Your task to perform on an android device: turn off location history Image 0: 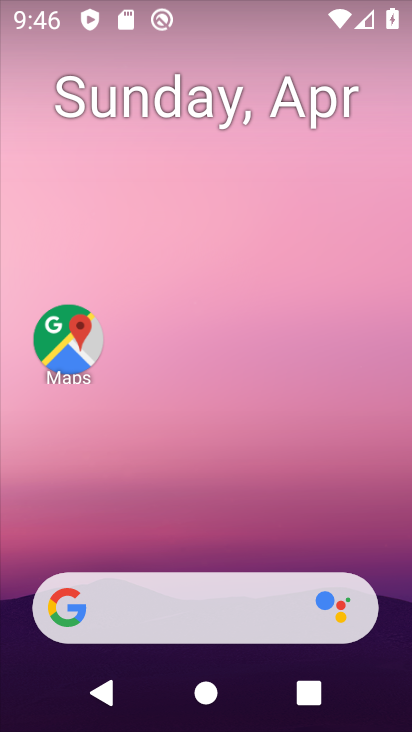
Step 0: drag from (221, 726) to (222, 213)
Your task to perform on an android device: turn off location history Image 1: 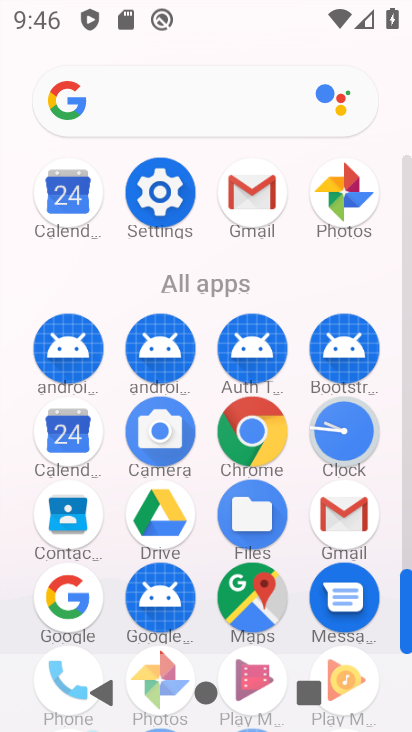
Step 1: click (148, 190)
Your task to perform on an android device: turn off location history Image 2: 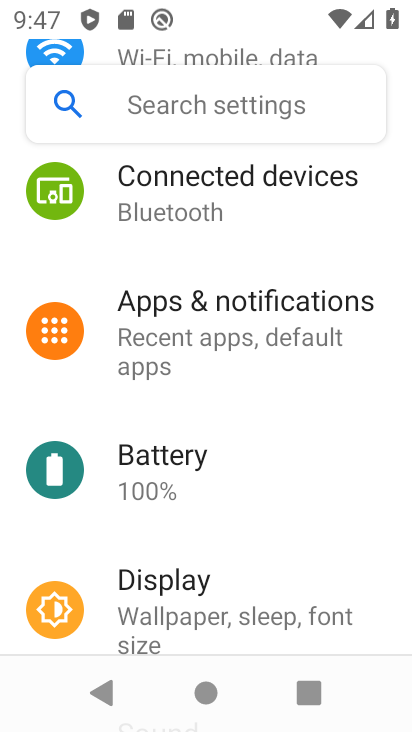
Step 2: drag from (258, 628) to (277, 214)
Your task to perform on an android device: turn off location history Image 3: 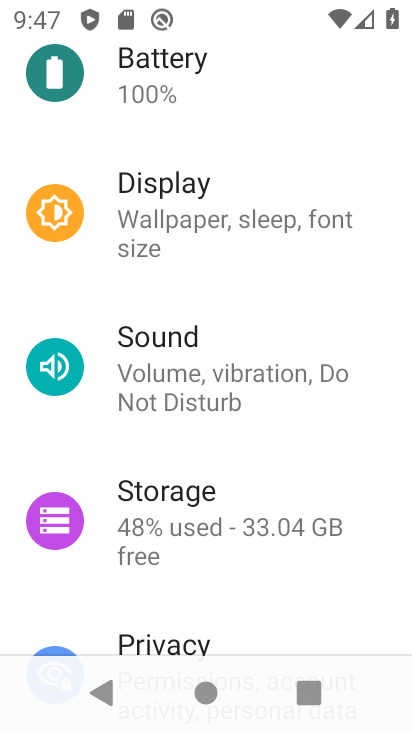
Step 3: drag from (236, 619) to (239, 205)
Your task to perform on an android device: turn off location history Image 4: 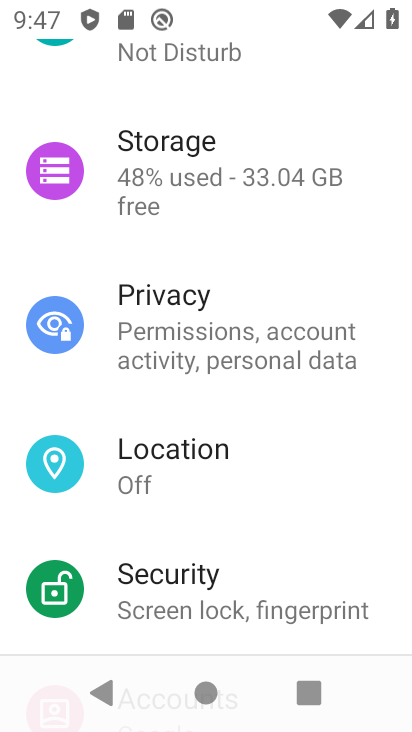
Step 4: click (158, 459)
Your task to perform on an android device: turn off location history Image 5: 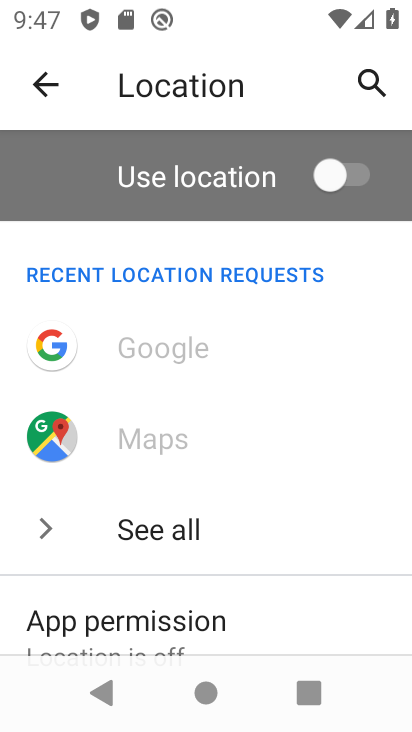
Step 5: drag from (263, 625) to (275, 292)
Your task to perform on an android device: turn off location history Image 6: 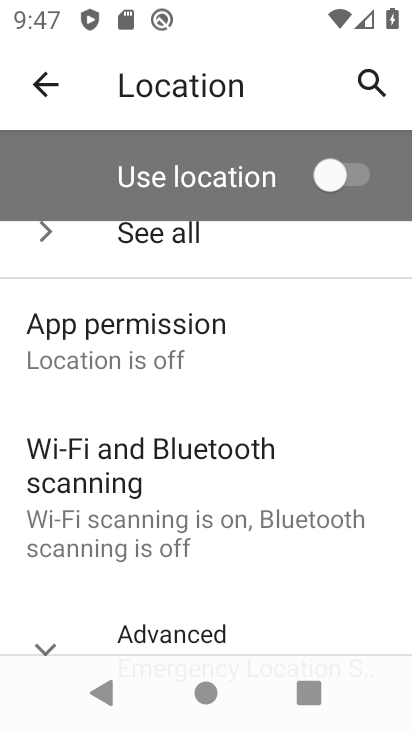
Step 6: drag from (265, 620) to (279, 305)
Your task to perform on an android device: turn off location history Image 7: 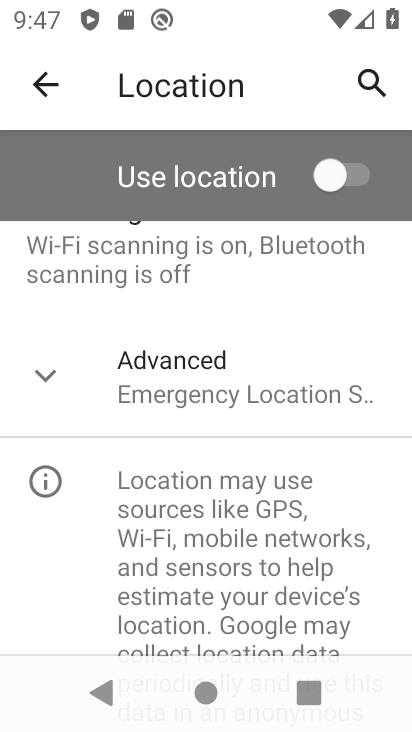
Step 7: click (152, 388)
Your task to perform on an android device: turn off location history Image 8: 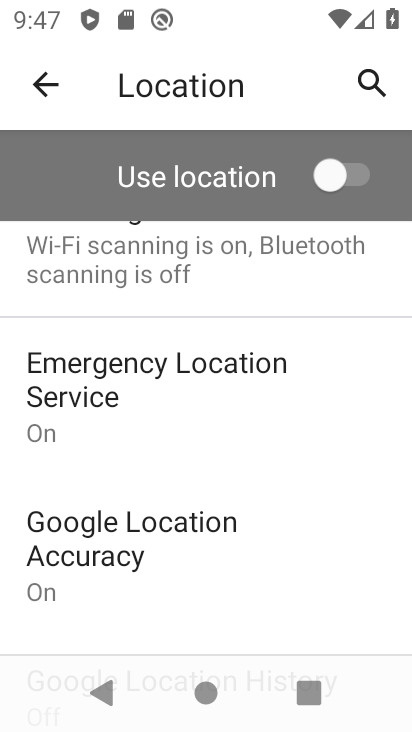
Step 8: drag from (211, 605) to (219, 411)
Your task to perform on an android device: turn off location history Image 9: 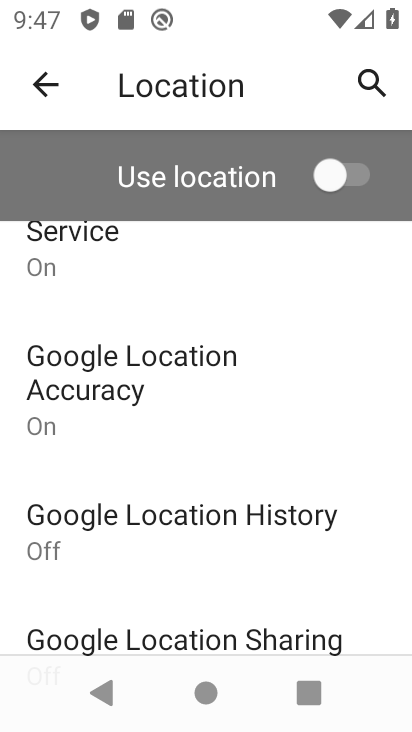
Step 9: click (210, 518)
Your task to perform on an android device: turn off location history Image 10: 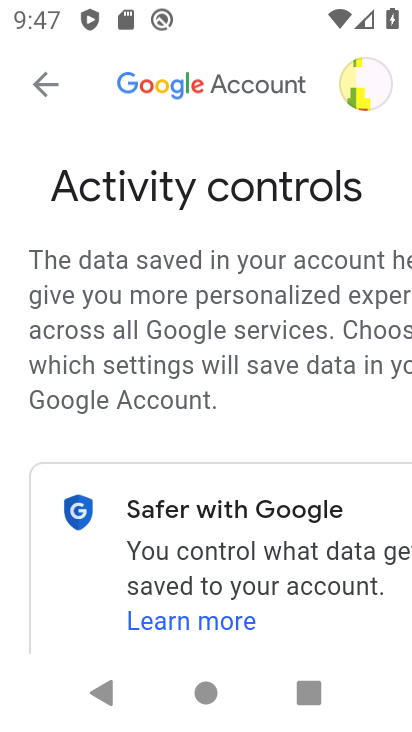
Step 10: drag from (286, 631) to (287, 216)
Your task to perform on an android device: turn off location history Image 11: 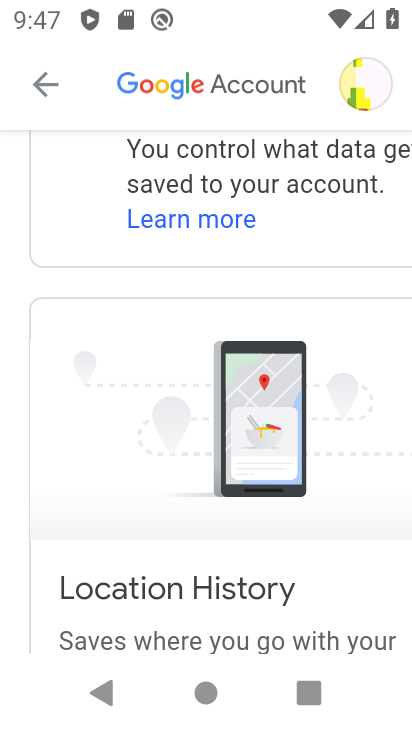
Step 11: drag from (227, 623) to (228, 235)
Your task to perform on an android device: turn off location history Image 12: 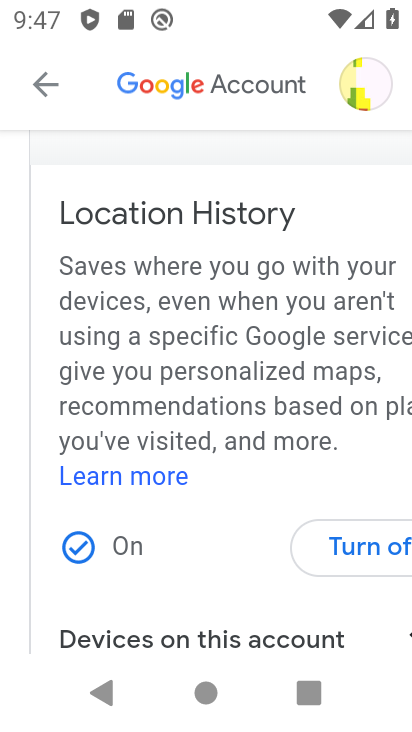
Step 12: click (346, 543)
Your task to perform on an android device: turn off location history Image 13: 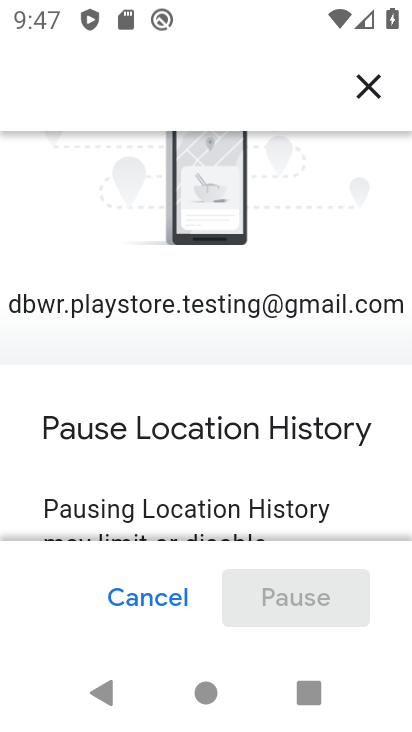
Step 13: drag from (226, 526) to (225, 228)
Your task to perform on an android device: turn off location history Image 14: 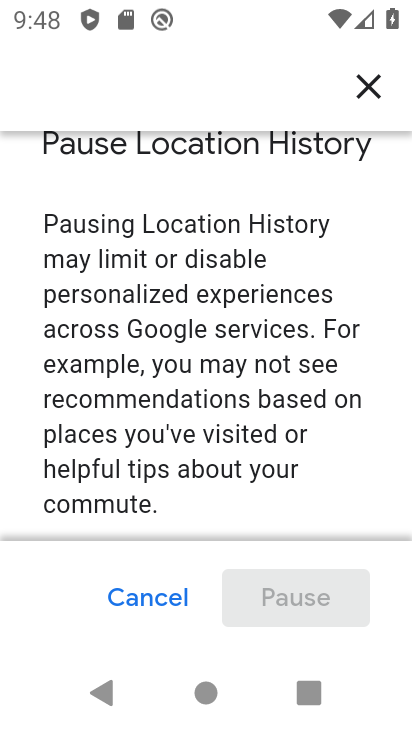
Step 14: drag from (232, 525) to (231, 120)
Your task to perform on an android device: turn off location history Image 15: 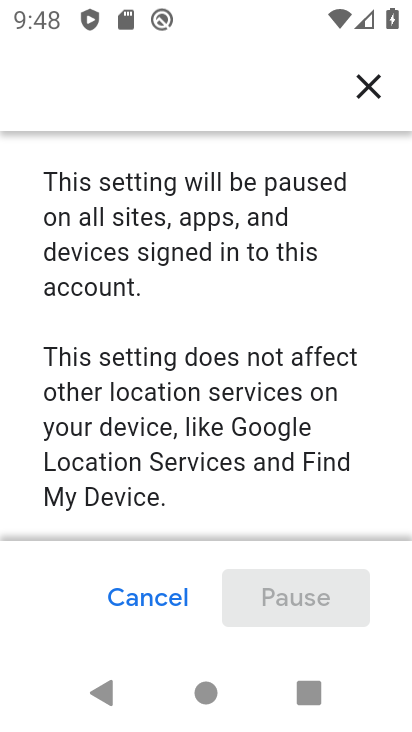
Step 15: drag from (259, 507) to (273, 69)
Your task to perform on an android device: turn off location history Image 16: 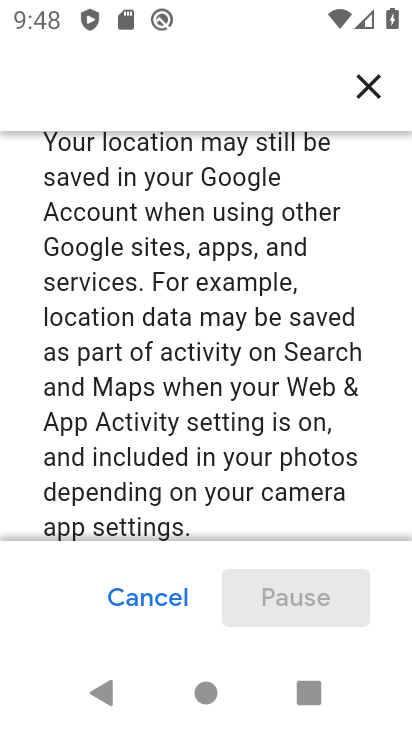
Step 16: drag from (269, 497) to (270, 130)
Your task to perform on an android device: turn off location history Image 17: 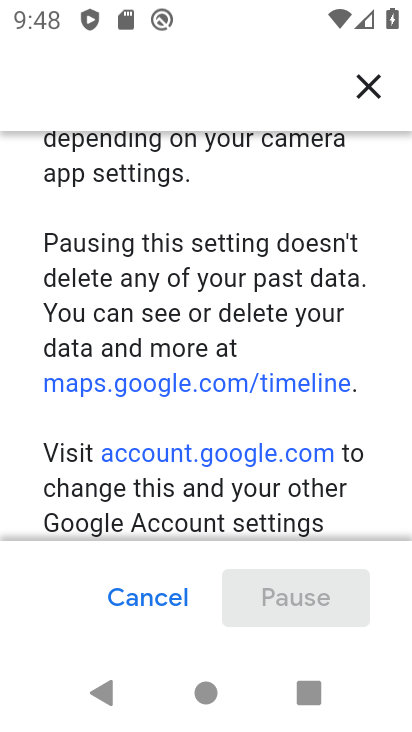
Step 17: drag from (269, 519) to (292, 11)
Your task to perform on an android device: turn off location history Image 18: 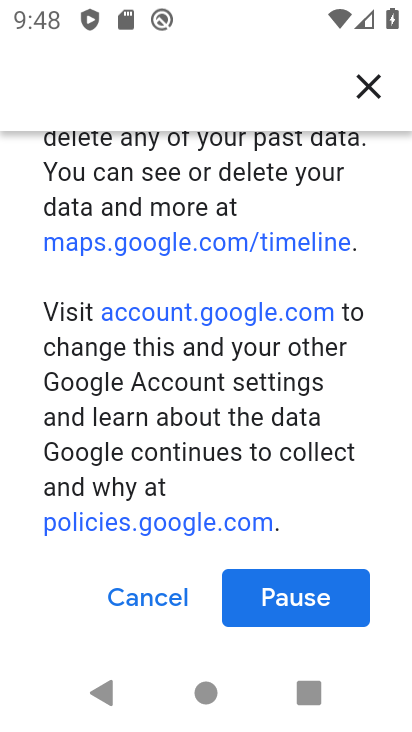
Step 18: click (309, 612)
Your task to perform on an android device: turn off location history Image 19: 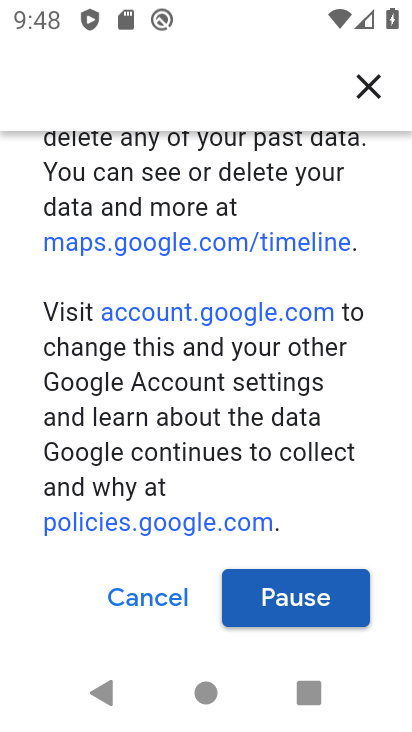
Step 19: click (295, 595)
Your task to perform on an android device: turn off location history Image 20: 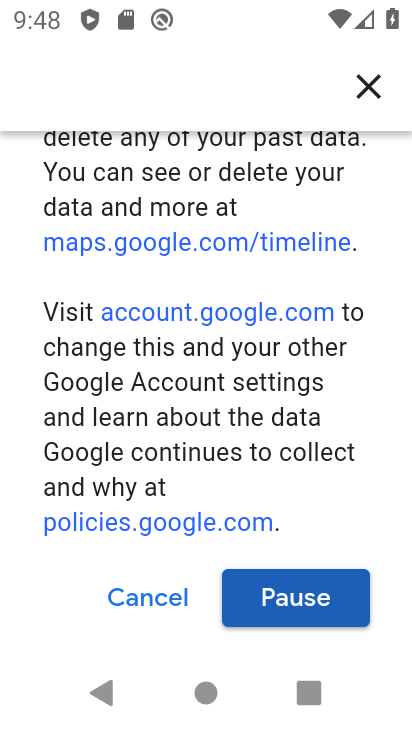
Step 20: click (294, 597)
Your task to perform on an android device: turn off location history Image 21: 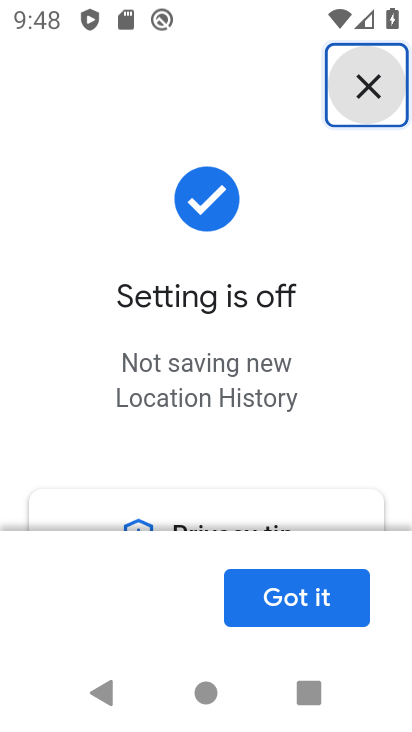
Step 21: task complete